Your task to perform on an android device: Open the web browser Image 0: 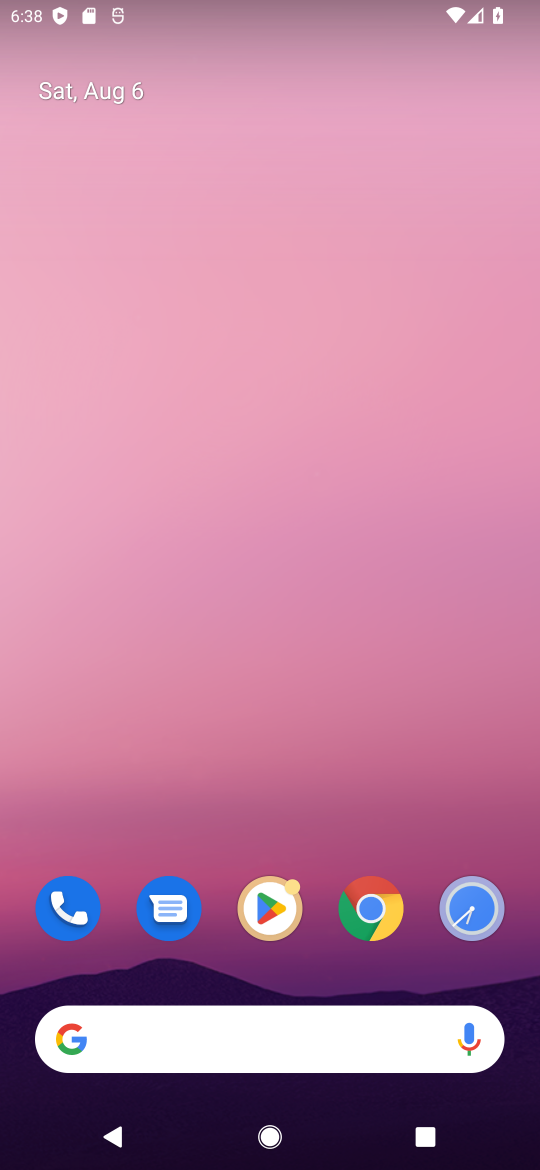
Step 0: click (381, 927)
Your task to perform on an android device: Open the web browser Image 1: 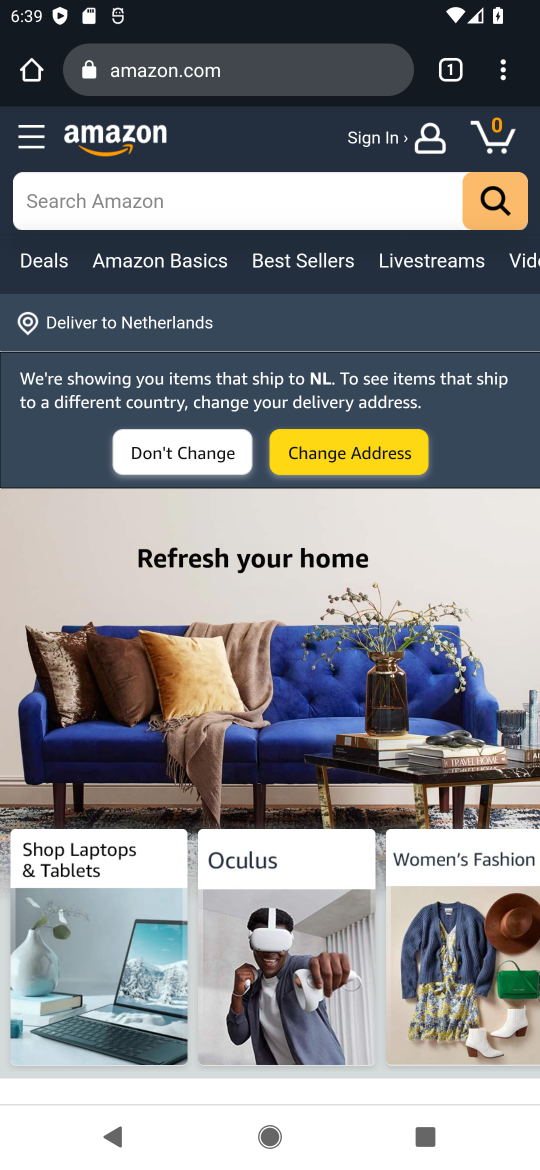
Step 1: task complete